Your task to perform on an android device: delete browsing data in the chrome app Image 0: 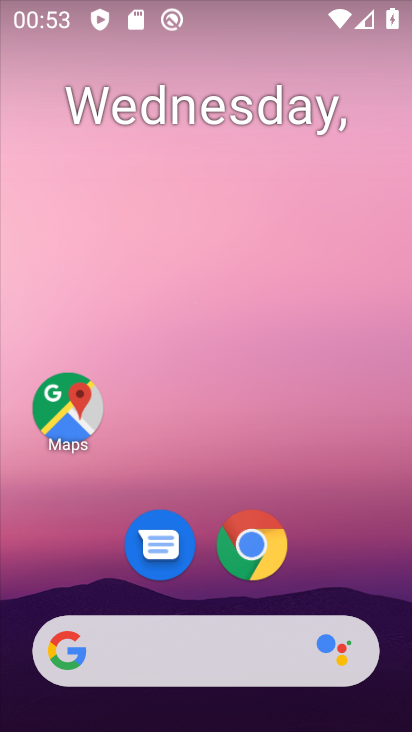
Step 0: drag from (330, 551) to (302, 143)
Your task to perform on an android device: delete browsing data in the chrome app Image 1: 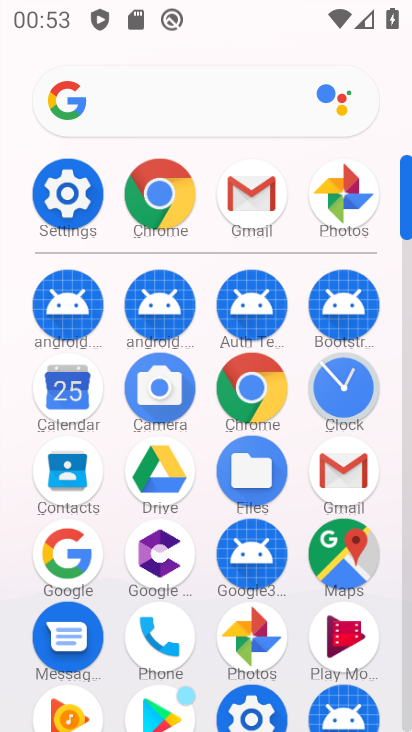
Step 1: click (257, 385)
Your task to perform on an android device: delete browsing data in the chrome app Image 2: 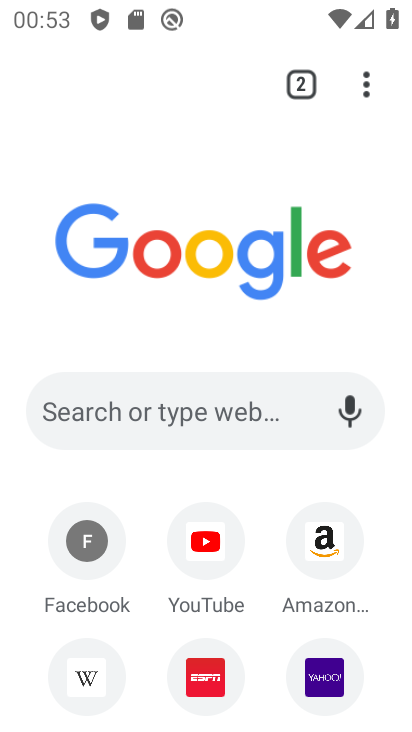
Step 2: task complete